Your task to perform on an android device: Go to Google maps Image 0: 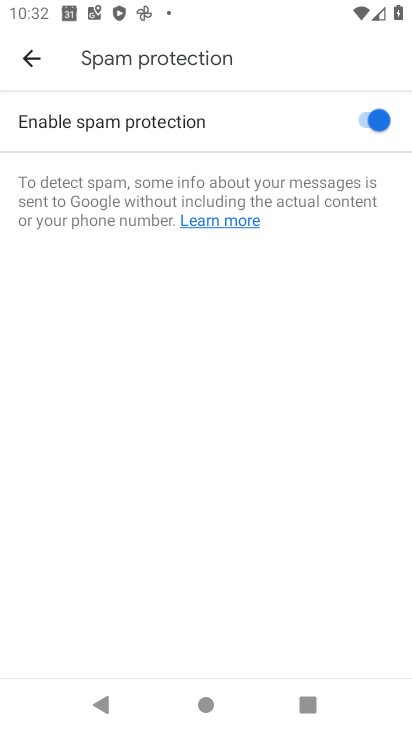
Step 0: press home button
Your task to perform on an android device: Go to Google maps Image 1: 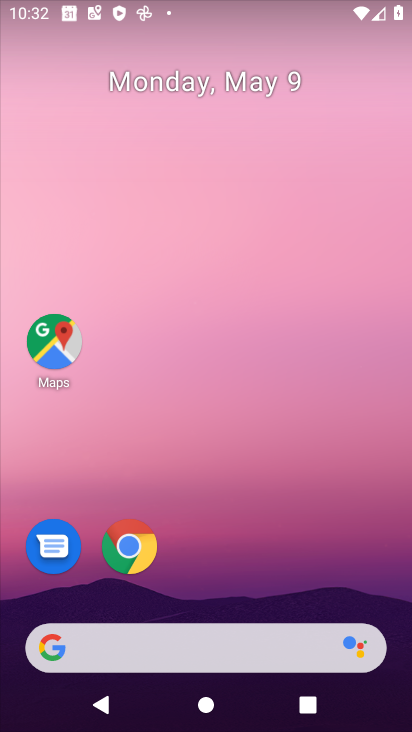
Step 1: click (59, 350)
Your task to perform on an android device: Go to Google maps Image 2: 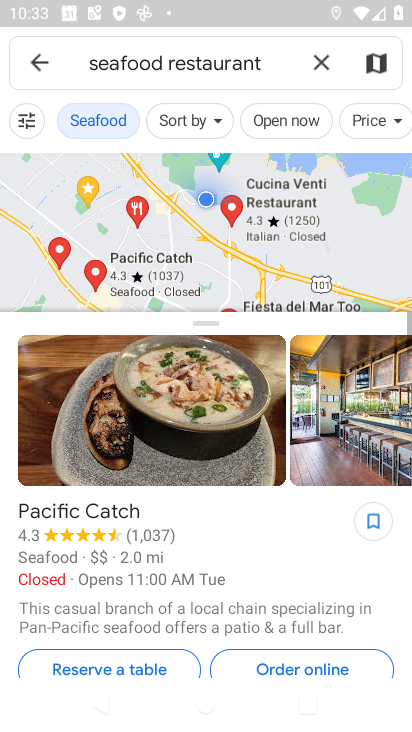
Step 2: click (320, 57)
Your task to perform on an android device: Go to Google maps Image 3: 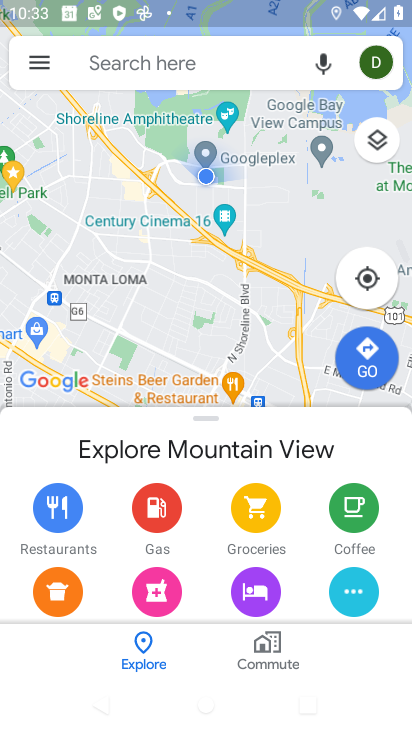
Step 3: task complete